Your task to perform on an android device: toggle data saver in the chrome app Image 0: 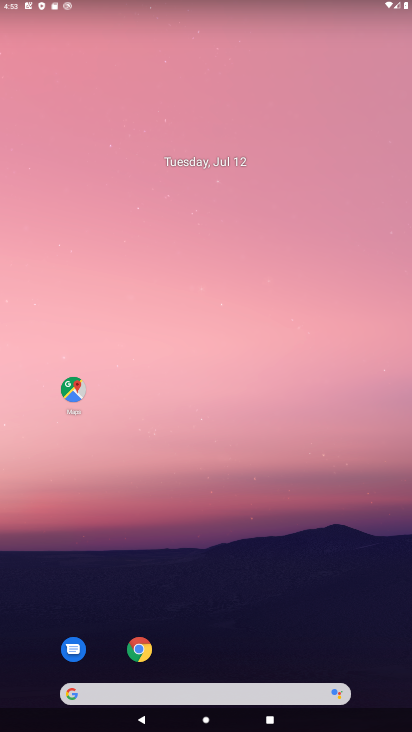
Step 0: click (140, 649)
Your task to perform on an android device: toggle data saver in the chrome app Image 1: 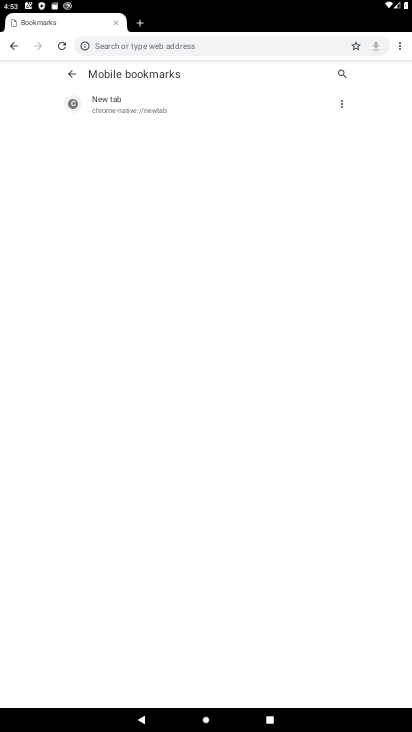
Step 1: click (398, 46)
Your task to perform on an android device: toggle data saver in the chrome app Image 2: 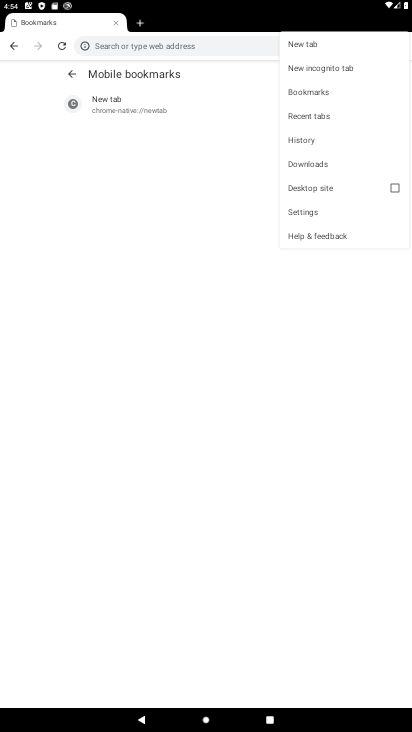
Step 2: click (304, 211)
Your task to perform on an android device: toggle data saver in the chrome app Image 3: 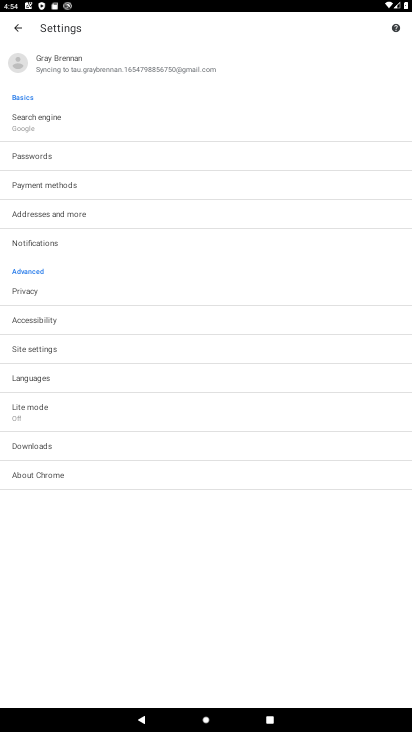
Step 3: click (28, 413)
Your task to perform on an android device: toggle data saver in the chrome app Image 4: 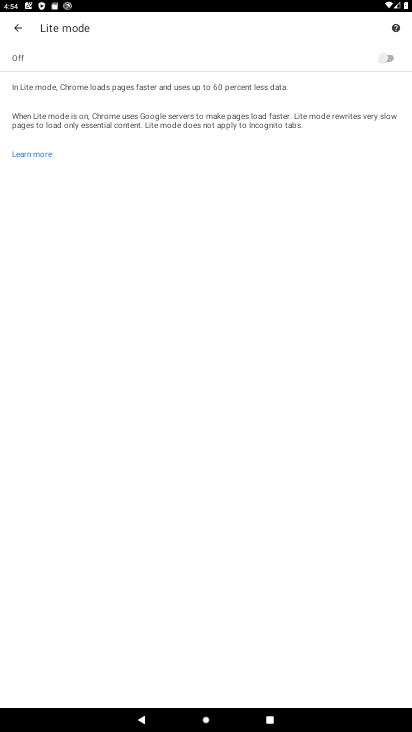
Step 4: click (385, 58)
Your task to perform on an android device: toggle data saver in the chrome app Image 5: 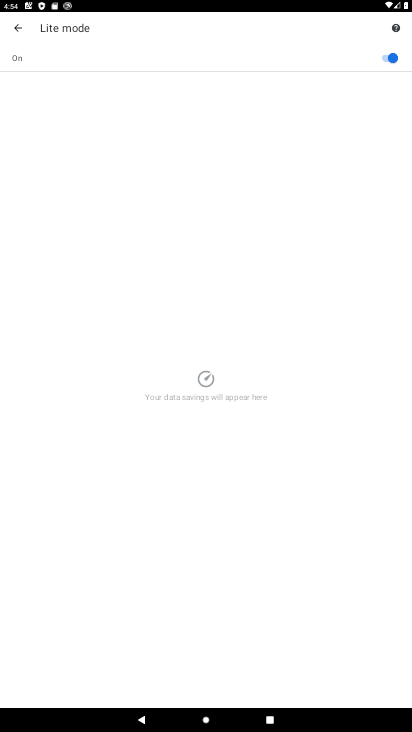
Step 5: task complete